Your task to perform on an android device: turn off translation in the chrome app Image 0: 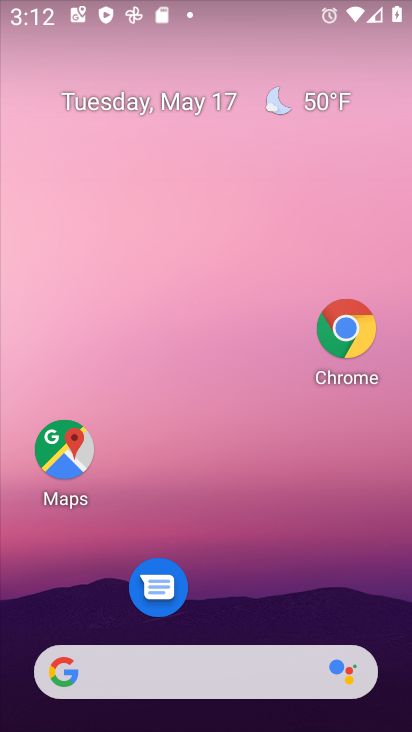
Step 0: click (359, 360)
Your task to perform on an android device: turn off translation in the chrome app Image 1: 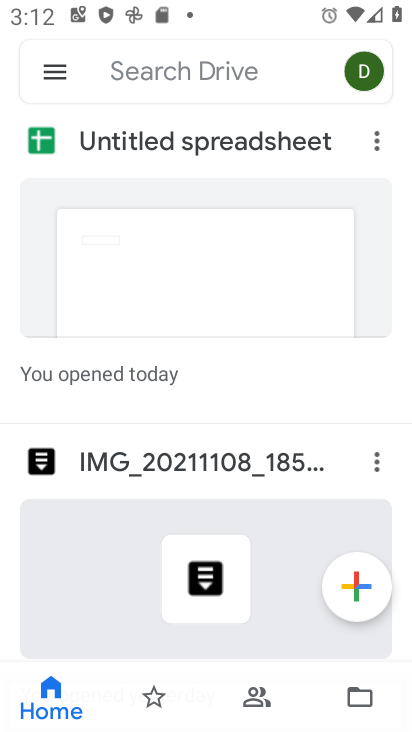
Step 1: press home button
Your task to perform on an android device: turn off translation in the chrome app Image 2: 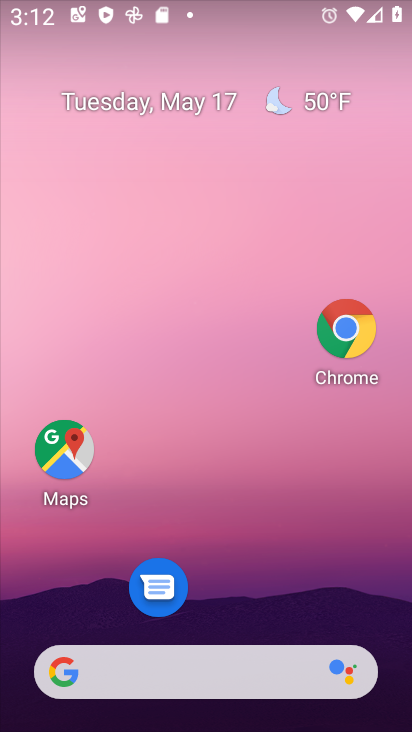
Step 2: drag from (266, 600) to (248, 208)
Your task to perform on an android device: turn off translation in the chrome app Image 3: 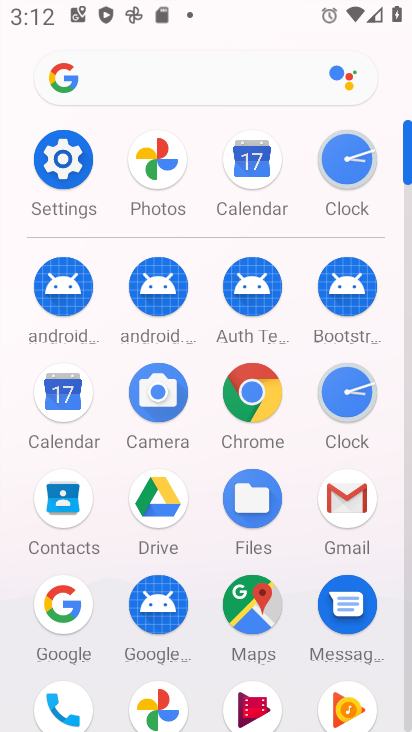
Step 3: click (247, 368)
Your task to perform on an android device: turn off translation in the chrome app Image 4: 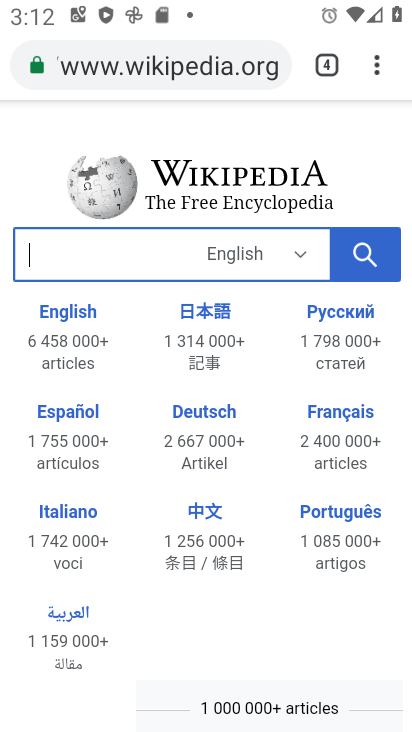
Step 4: click (239, 71)
Your task to perform on an android device: turn off translation in the chrome app Image 5: 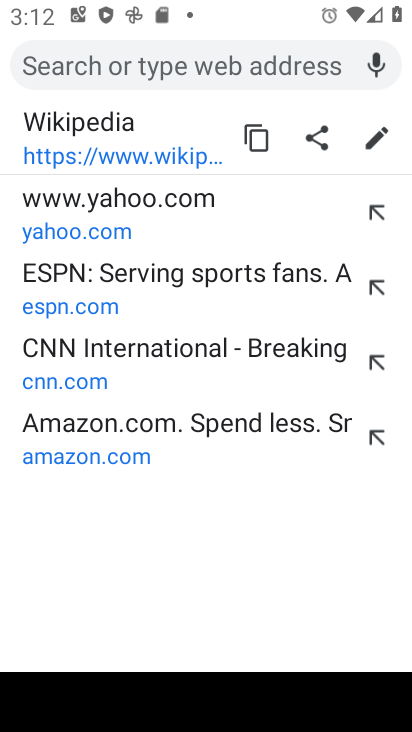
Step 5: press home button
Your task to perform on an android device: turn off translation in the chrome app Image 6: 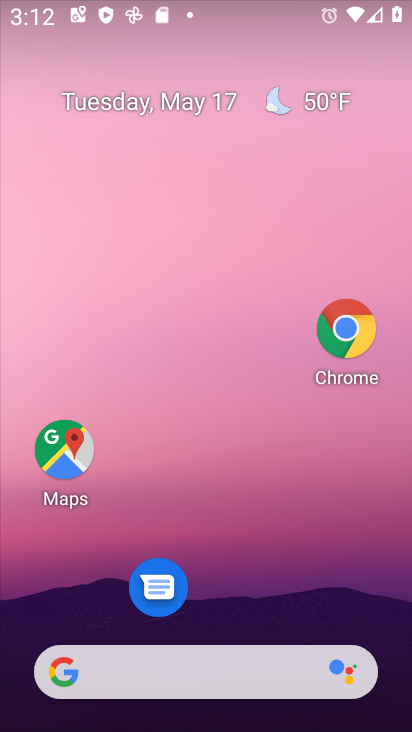
Step 6: click (362, 350)
Your task to perform on an android device: turn off translation in the chrome app Image 7: 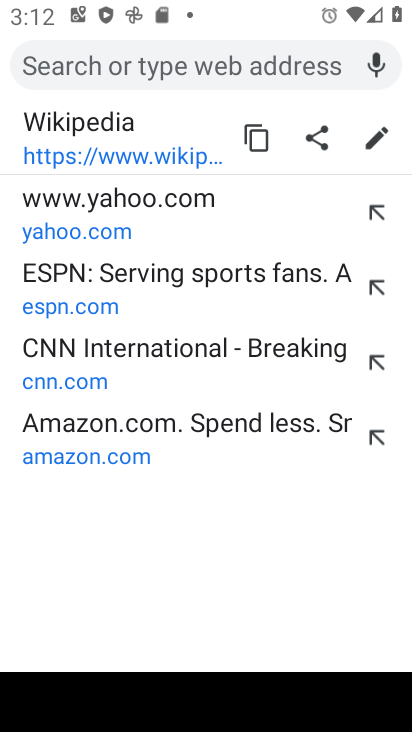
Step 7: click (57, 693)
Your task to perform on an android device: turn off translation in the chrome app Image 8: 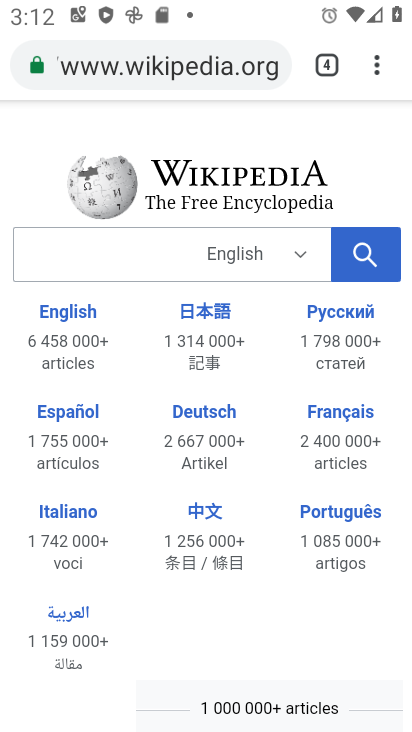
Step 8: click (369, 74)
Your task to perform on an android device: turn off translation in the chrome app Image 9: 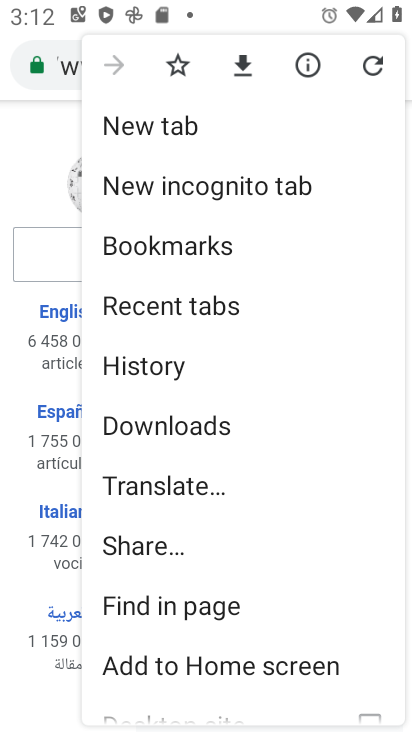
Step 9: drag from (136, 597) to (185, 323)
Your task to perform on an android device: turn off translation in the chrome app Image 10: 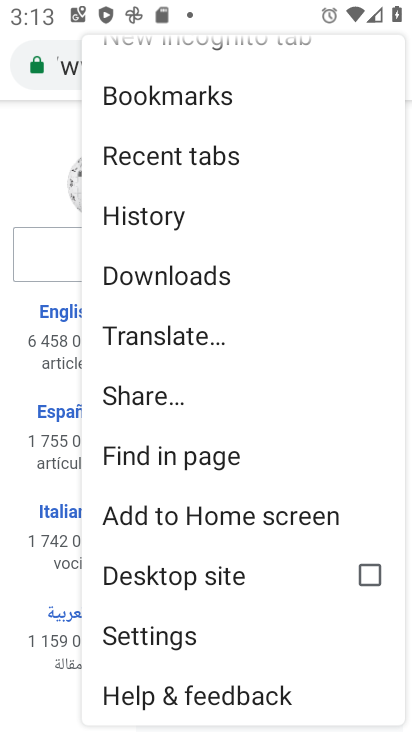
Step 10: click (159, 628)
Your task to perform on an android device: turn off translation in the chrome app Image 11: 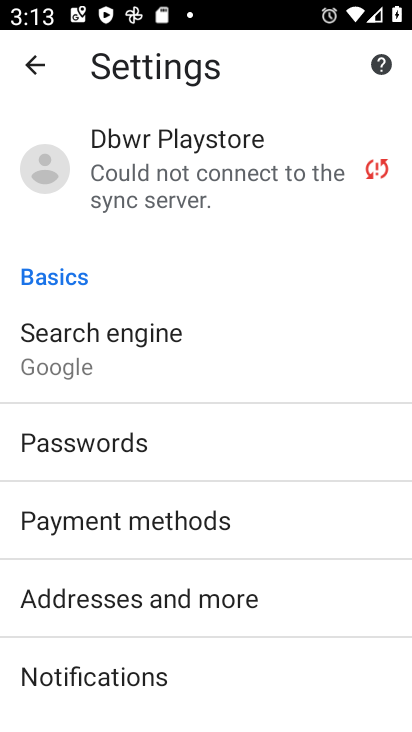
Step 11: drag from (153, 562) to (183, 294)
Your task to perform on an android device: turn off translation in the chrome app Image 12: 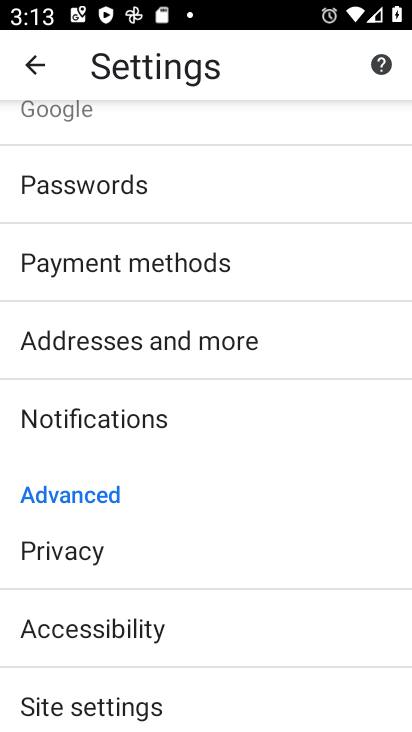
Step 12: drag from (113, 674) to (113, 477)
Your task to perform on an android device: turn off translation in the chrome app Image 13: 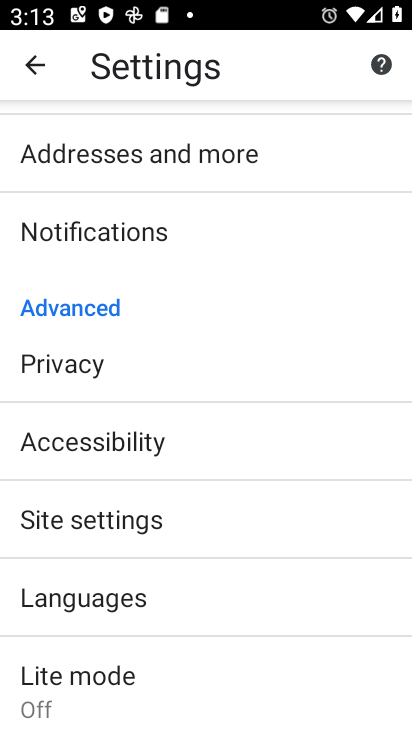
Step 13: click (118, 617)
Your task to perform on an android device: turn off translation in the chrome app Image 14: 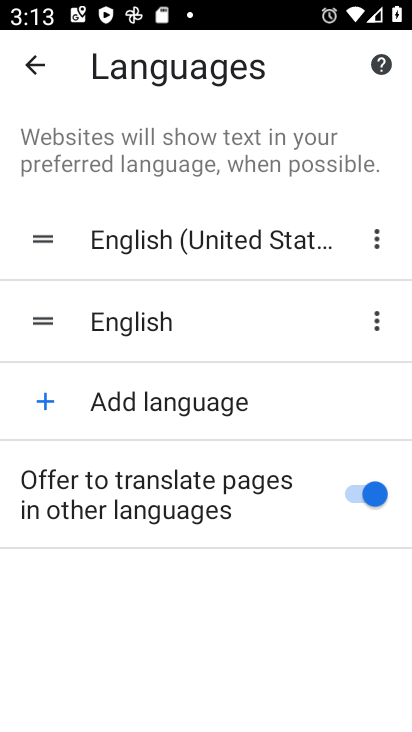
Step 14: click (370, 490)
Your task to perform on an android device: turn off translation in the chrome app Image 15: 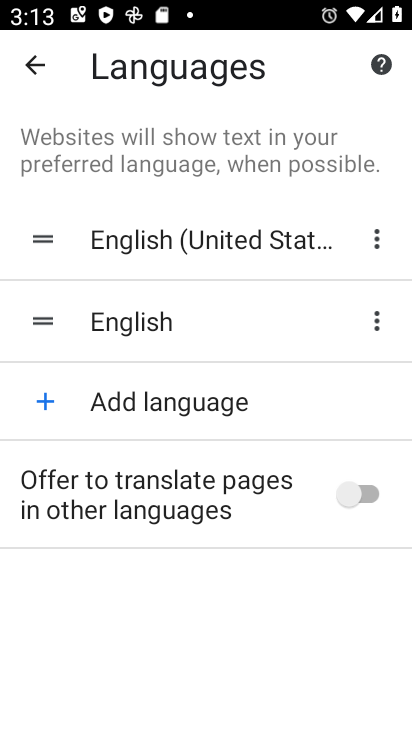
Step 15: task complete